Your task to perform on an android device: turn off priority inbox in the gmail app Image 0: 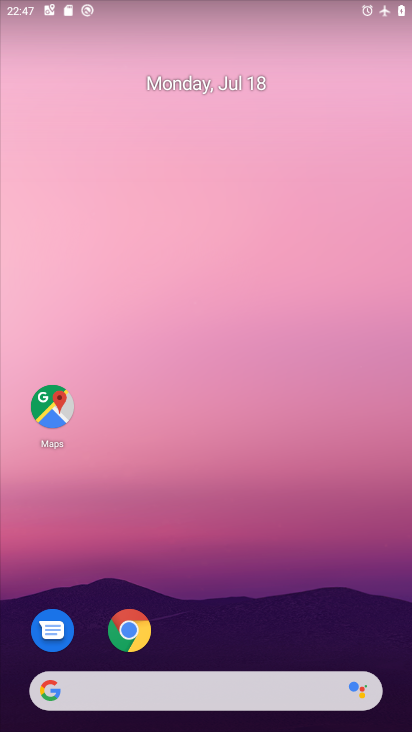
Step 0: drag from (197, 647) to (196, 196)
Your task to perform on an android device: turn off priority inbox in the gmail app Image 1: 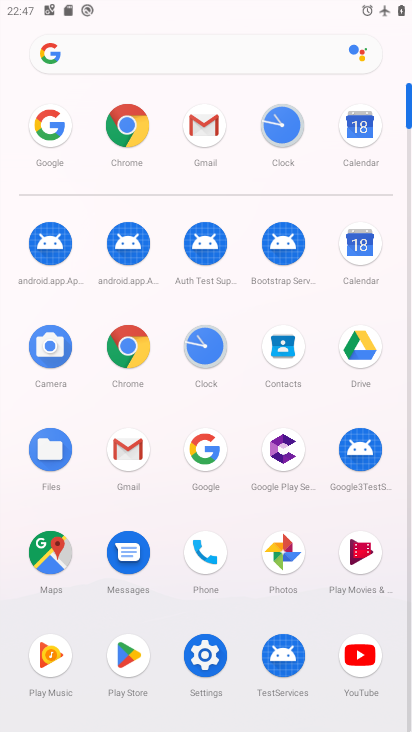
Step 1: click (196, 140)
Your task to perform on an android device: turn off priority inbox in the gmail app Image 2: 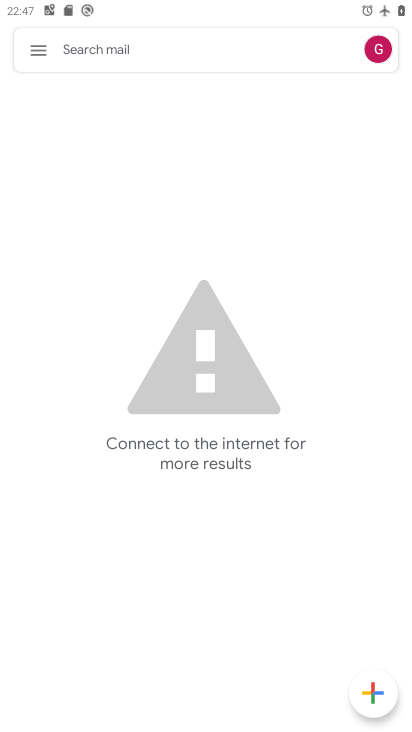
Step 2: click (35, 56)
Your task to perform on an android device: turn off priority inbox in the gmail app Image 3: 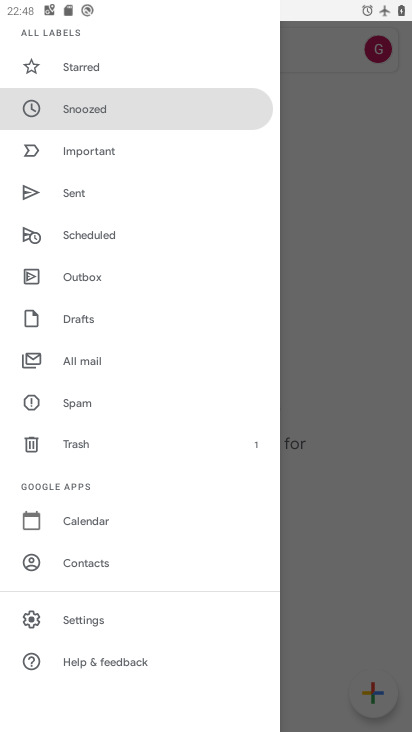
Step 3: click (117, 627)
Your task to perform on an android device: turn off priority inbox in the gmail app Image 4: 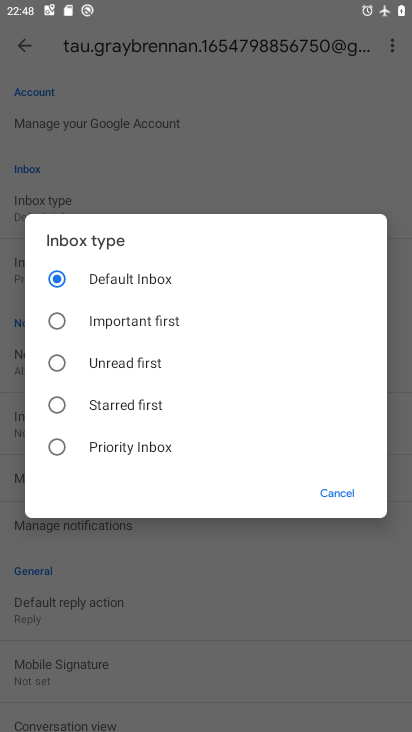
Step 4: task complete